Your task to perform on an android device: turn on data saver in the chrome app Image 0: 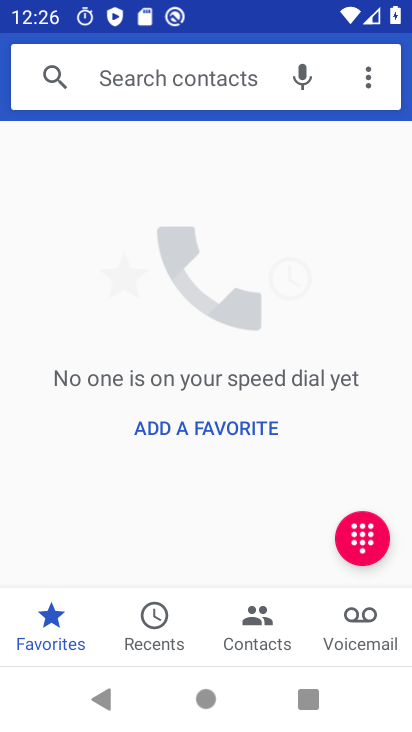
Step 0: drag from (225, 653) to (224, 368)
Your task to perform on an android device: turn on data saver in the chrome app Image 1: 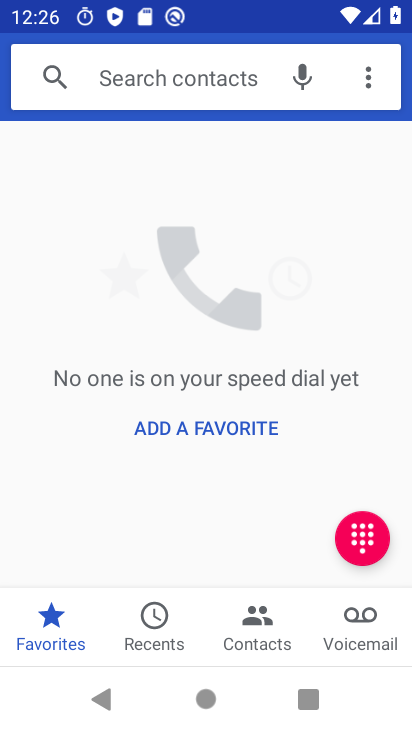
Step 1: press home button
Your task to perform on an android device: turn on data saver in the chrome app Image 2: 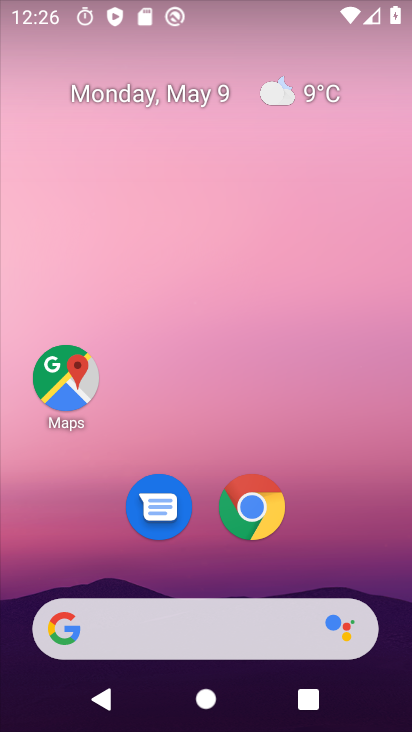
Step 2: click (251, 505)
Your task to perform on an android device: turn on data saver in the chrome app Image 3: 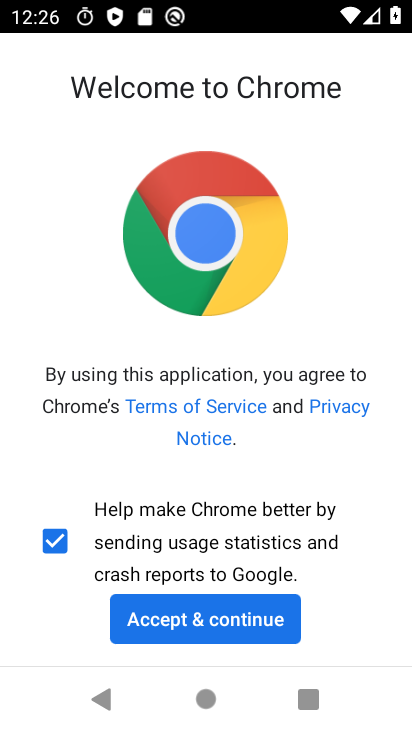
Step 3: click (223, 623)
Your task to perform on an android device: turn on data saver in the chrome app Image 4: 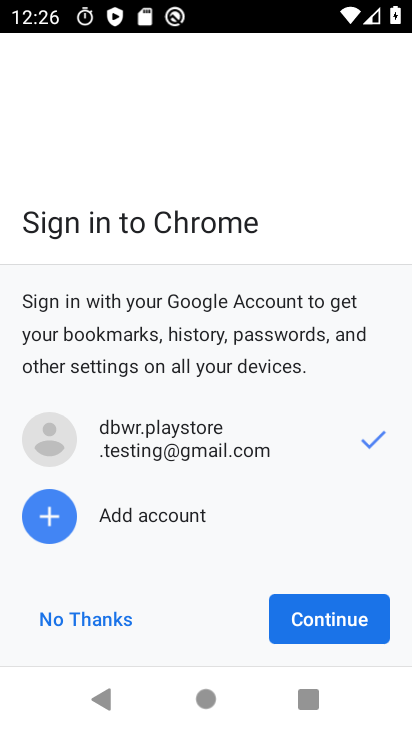
Step 4: click (300, 625)
Your task to perform on an android device: turn on data saver in the chrome app Image 5: 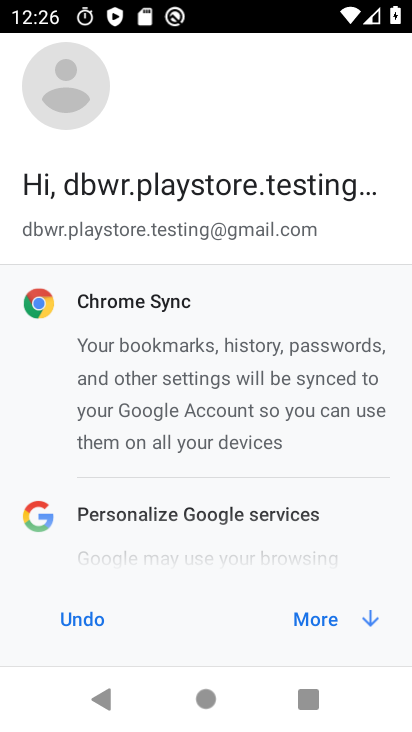
Step 5: click (308, 620)
Your task to perform on an android device: turn on data saver in the chrome app Image 6: 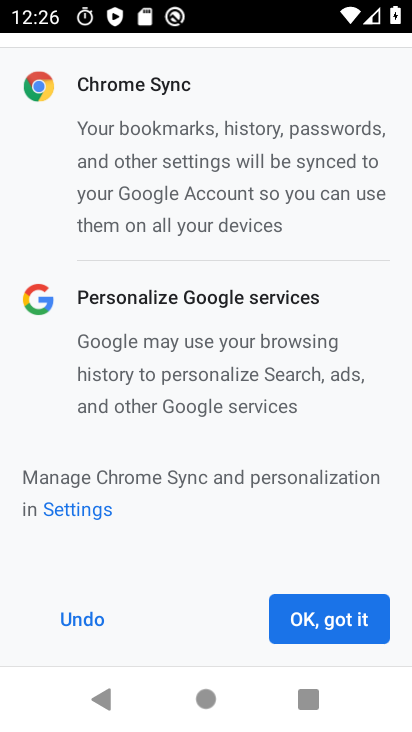
Step 6: click (308, 620)
Your task to perform on an android device: turn on data saver in the chrome app Image 7: 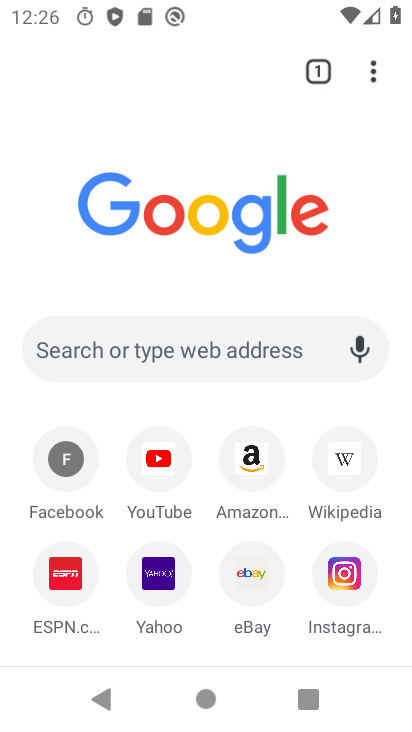
Step 7: click (374, 77)
Your task to perform on an android device: turn on data saver in the chrome app Image 8: 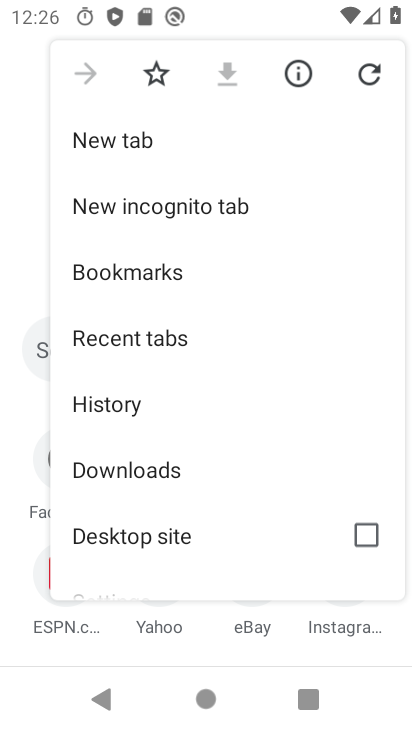
Step 8: drag from (134, 514) to (137, 216)
Your task to perform on an android device: turn on data saver in the chrome app Image 9: 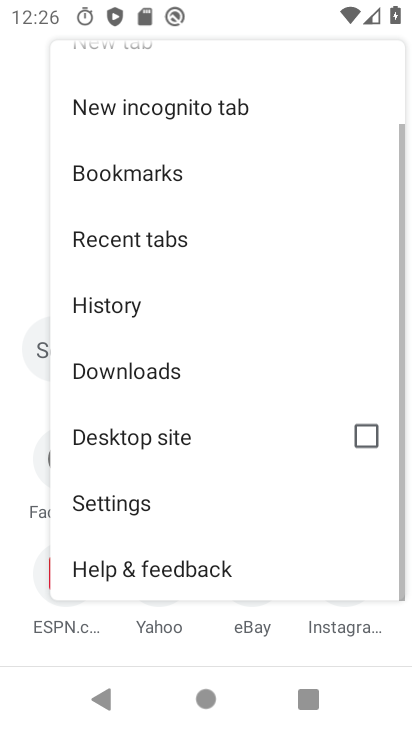
Step 9: click (119, 498)
Your task to perform on an android device: turn on data saver in the chrome app Image 10: 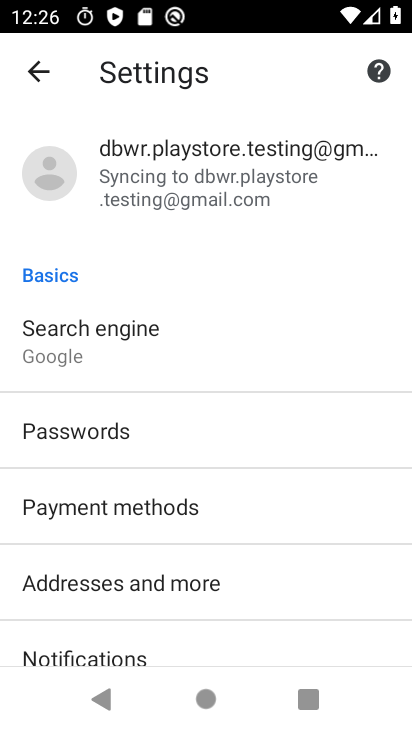
Step 10: drag from (158, 638) to (165, 323)
Your task to perform on an android device: turn on data saver in the chrome app Image 11: 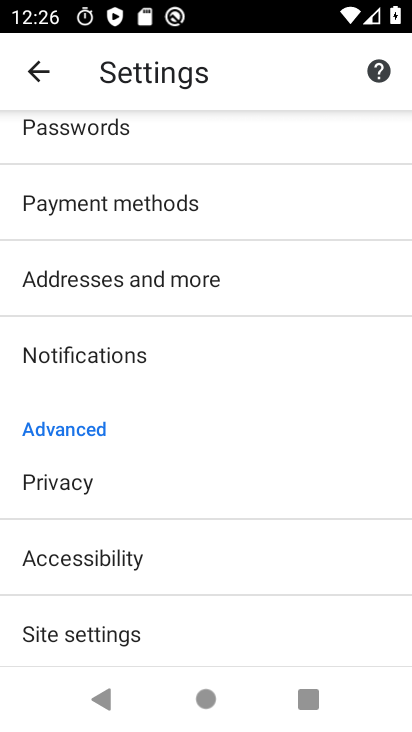
Step 11: drag from (122, 614) to (157, 329)
Your task to perform on an android device: turn on data saver in the chrome app Image 12: 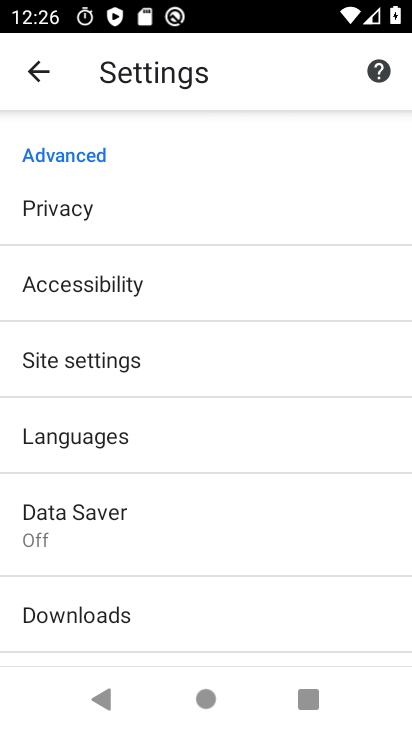
Step 12: click (100, 512)
Your task to perform on an android device: turn on data saver in the chrome app Image 13: 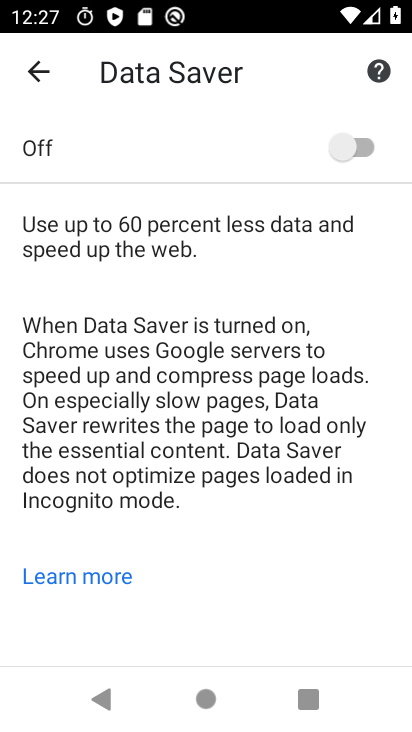
Step 13: click (366, 143)
Your task to perform on an android device: turn on data saver in the chrome app Image 14: 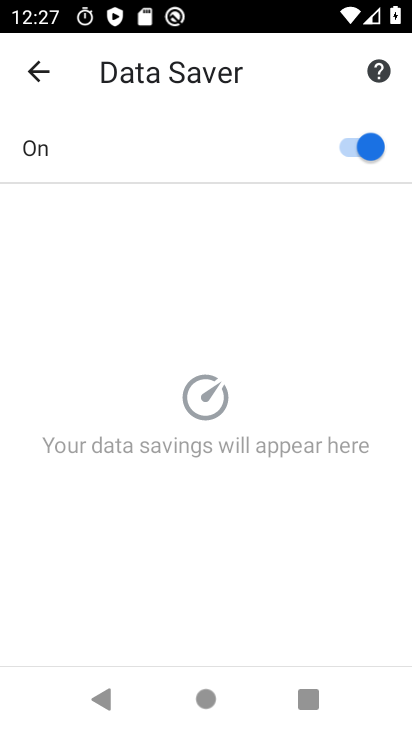
Step 14: task complete